Your task to perform on an android device: search for starred emails in the gmail app Image 0: 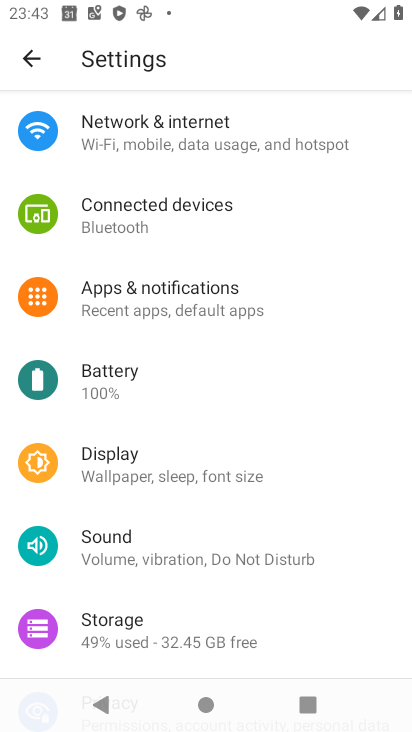
Step 0: press home button
Your task to perform on an android device: search for starred emails in the gmail app Image 1: 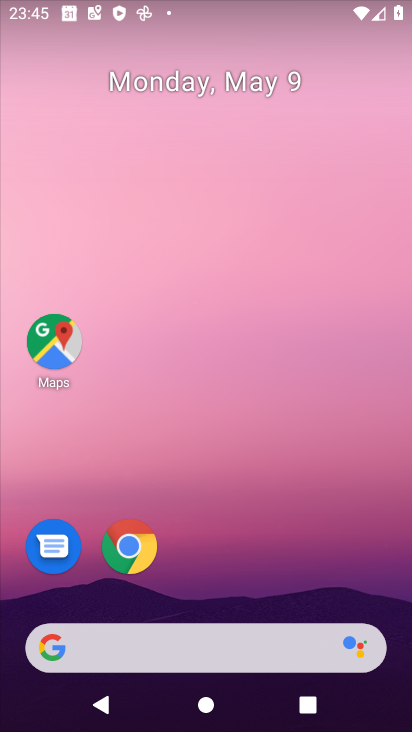
Step 1: drag from (257, 656) to (262, 104)
Your task to perform on an android device: search for starred emails in the gmail app Image 2: 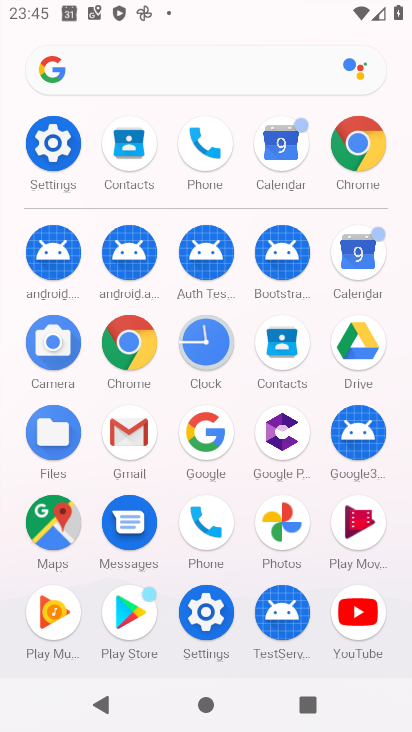
Step 2: click (136, 442)
Your task to perform on an android device: search for starred emails in the gmail app Image 3: 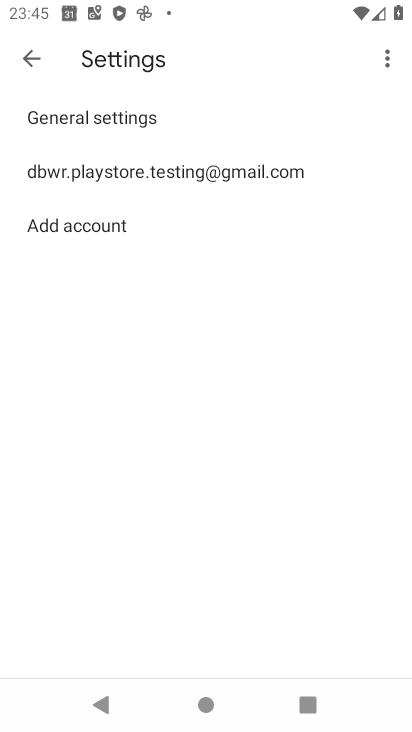
Step 3: click (166, 169)
Your task to perform on an android device: search for starred emails in the gmail app Image 4: 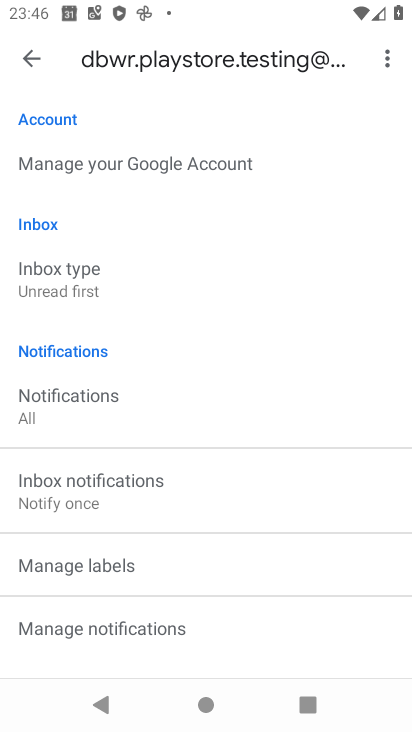
Step 4: click (36, 62)
Your task to perform on an android device: search for starred emails in the gmail app Image 5: 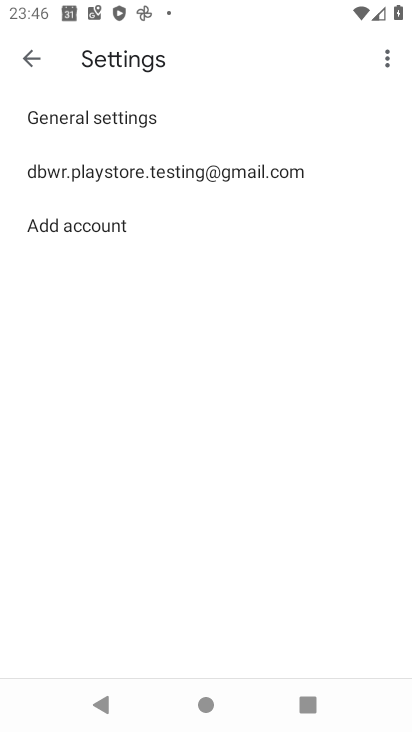
Step 5: click (33, 52)
Your task to perform on an android device: search for starred emails in the gmail app Image 6: 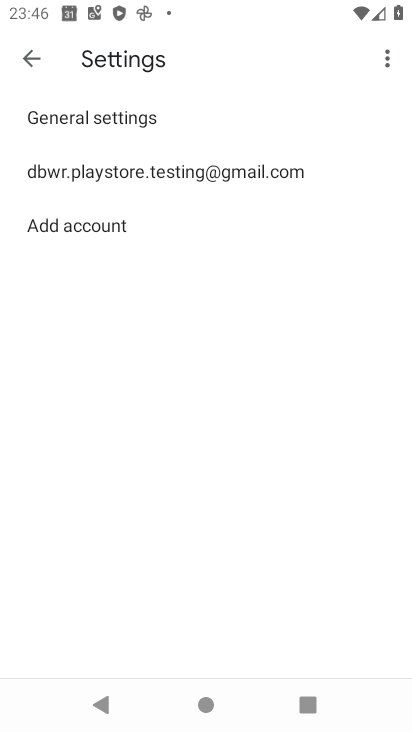
Step 6: click (31, 67)
Your task to perform on an android device: search for starred emails in the gmail app Image 7: 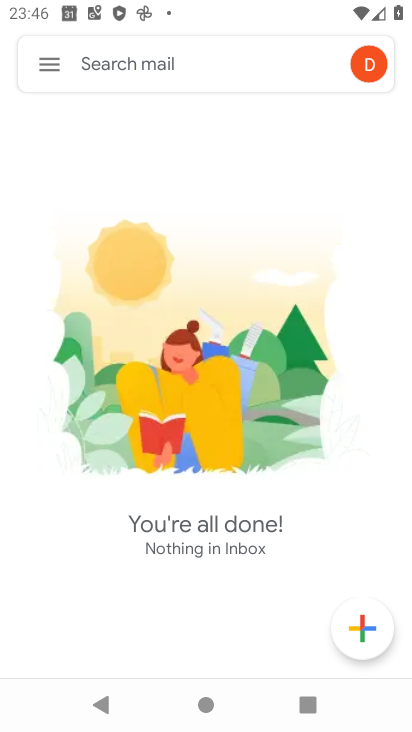
Step 7: click (48, 62)
Your task to perform on an android device: search for starred emails in the gmail app Image 8: 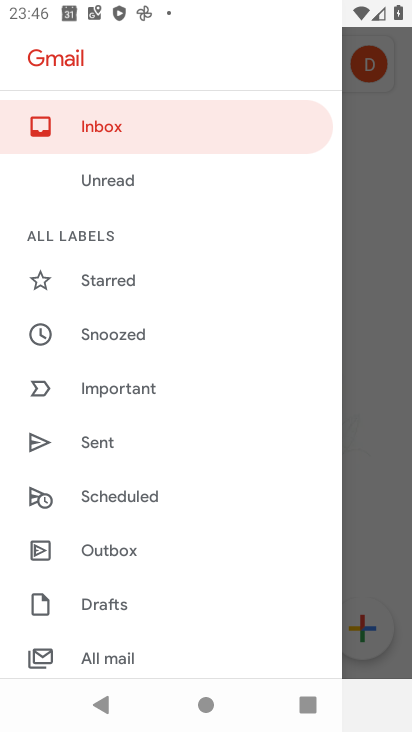
Step 8: click (132, 284)
Your task to perform on an android device: search for starred emails in the gmail app Image 9: 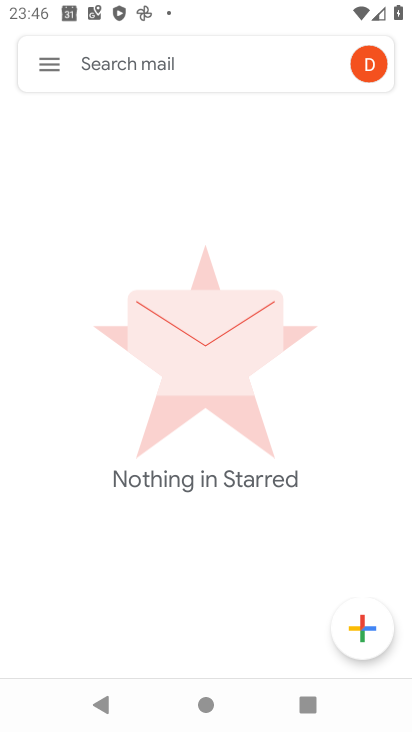
Step 9: click (54, 73)
Your task to perform on an android device: search for starred emails in the gmail app Image 10: 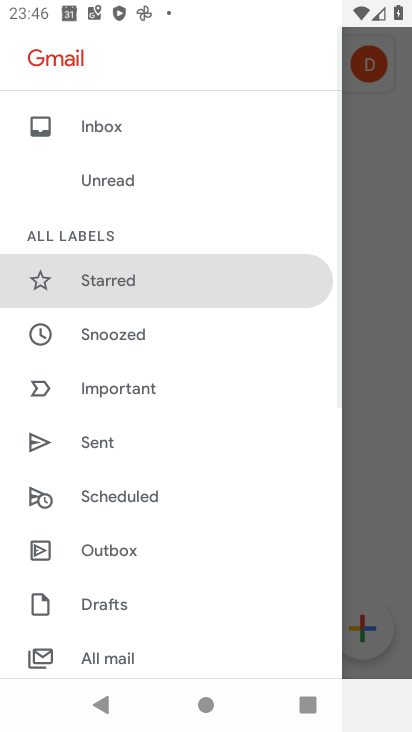
Step 10: click (109, 123)
Your task to perform on an android device: search for starred emails in the gmail app Image 11: 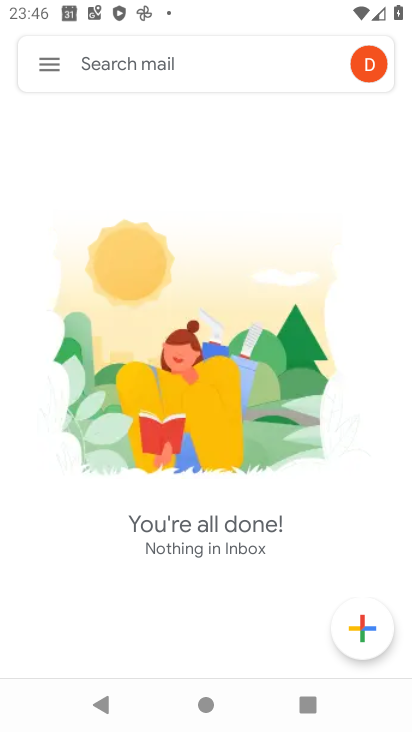
Step 11: task complete